Your task to perform on an android device: Open the phone app and click the voicemail tab. Image 0: 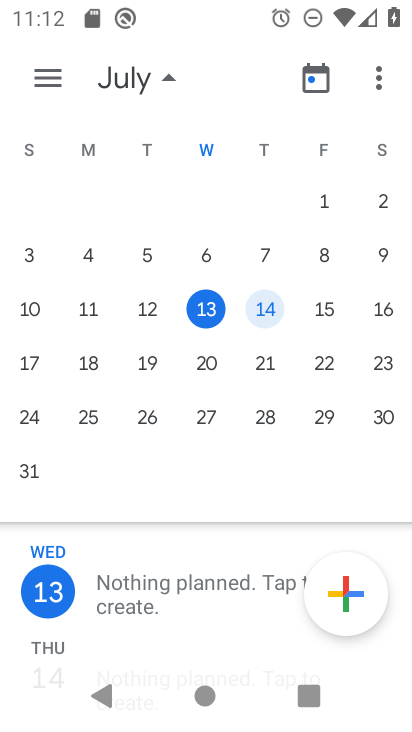
Step 0: press home button
Your task to perform on an android device: Open the phone app and click the voicemail tab. Image 1: 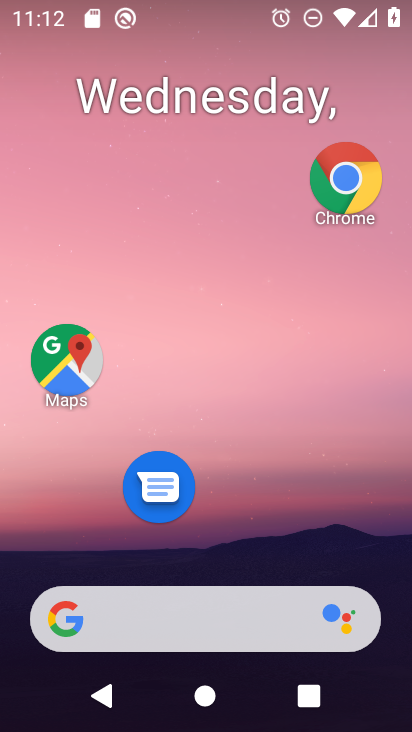
Step 1: drag from (185, 594) to (240, 121)
Your task to perform on an android device: Open the phone app and click the voicemail tab. Image 2: 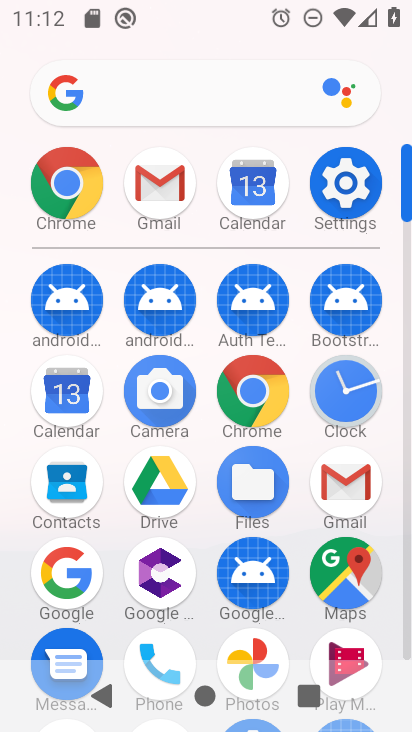
Step 2: drag from (214, 452) to (234, 121)
Your task to perform on an android device: Open the phone app and click the voicemail tab. Image 3: 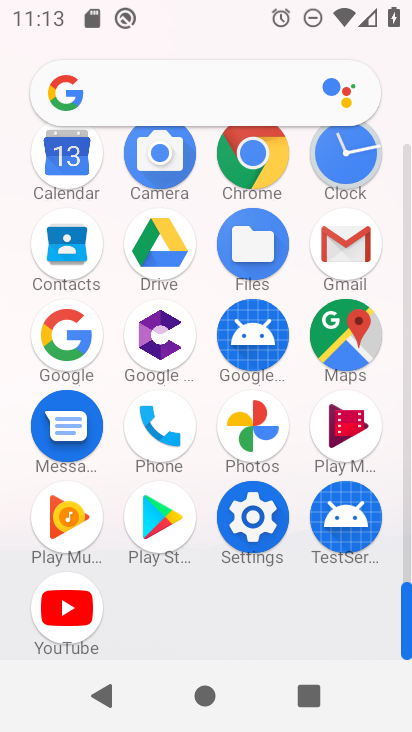
Step 3: click (164, 428)
Your task to perform on an android device: Open the phone app and click the voicemail tab. Image 4: 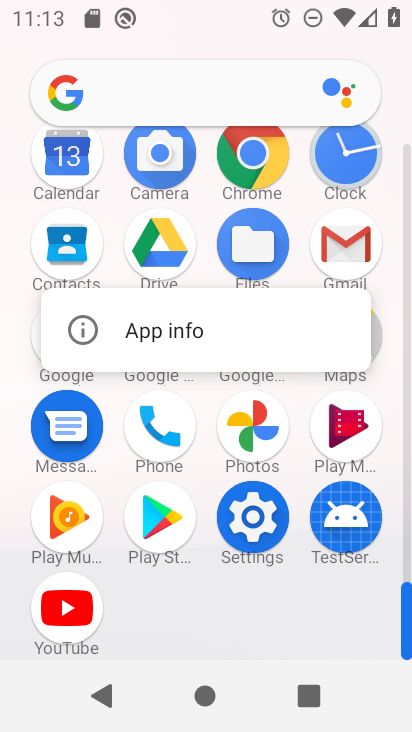
Step 4: click (168, 424)
Your task to perform on an android device: Open the phone app and click the voicemail tab. Image 5: 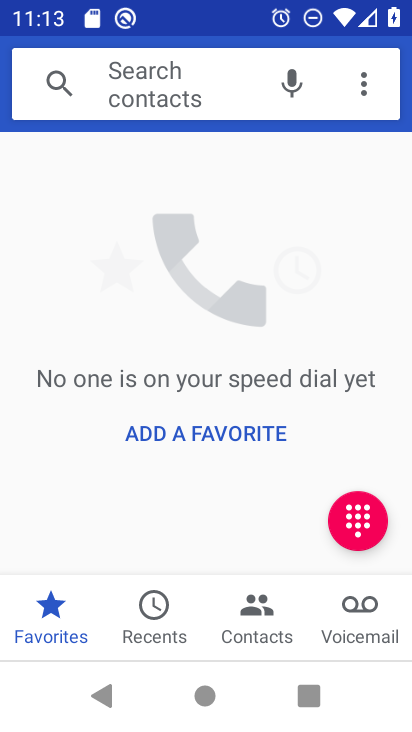
Step 5: click (356, 622)
Your task to perform on an android device: Open the phone app and click the voicemail tab. Image 6: 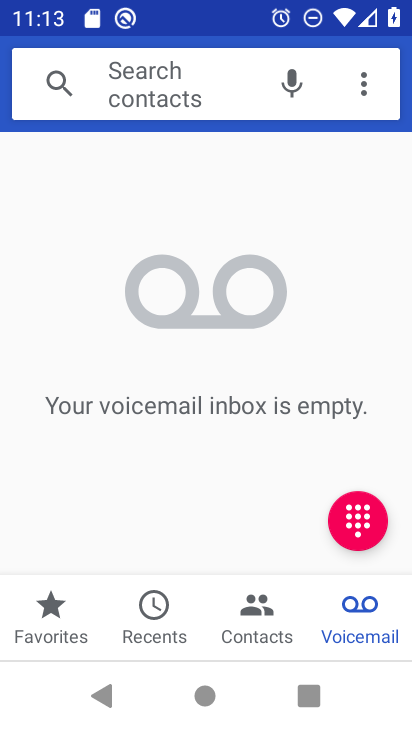
Step 6: task complete